Your task to perform on an android device: Open my contact list Image 0: 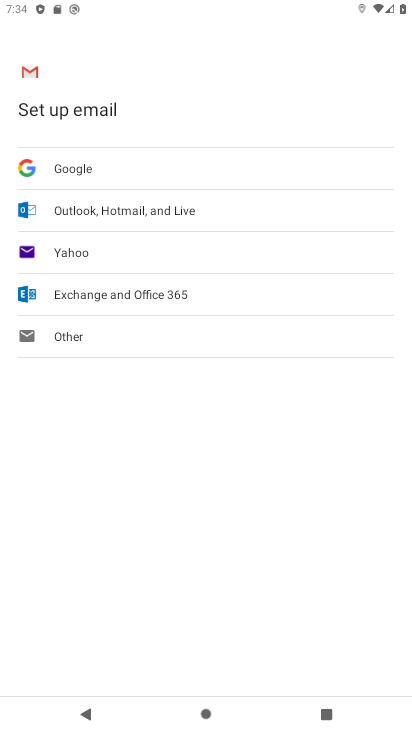
Step 0: press home button
Your task to perform on an android device: Open my contact list Image 1: 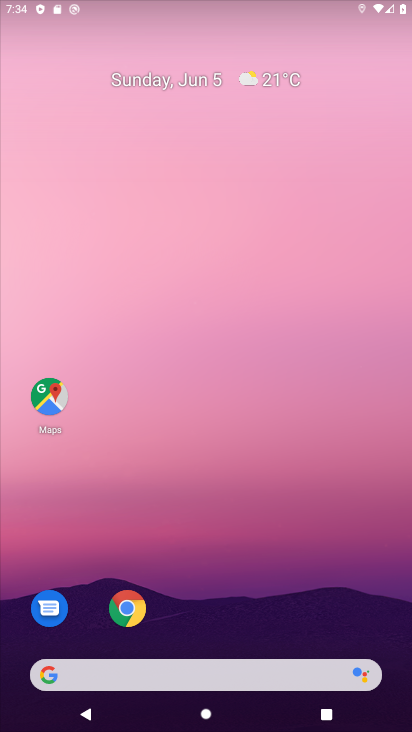
Step 1: drag from (247, 558) to (254, 265)
Your task to perform on an android device: Open my contact list Image 2: 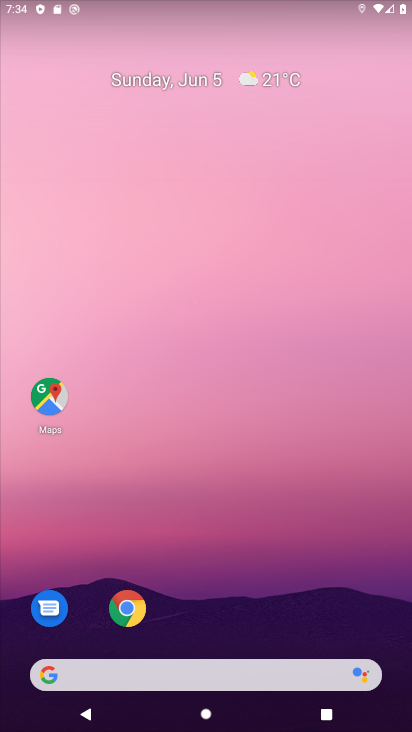
Step 2: drag from (257, 521) to (306, 212)
Your task to perform on an android device: Open my contact list Image 3: 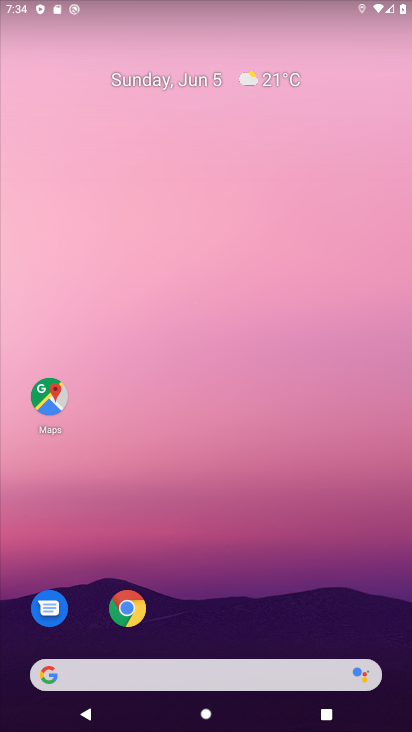
Step 3: drag from (294, 580) to (300, 203)
Your task to perform on an android device: Open my contact list Image 4: 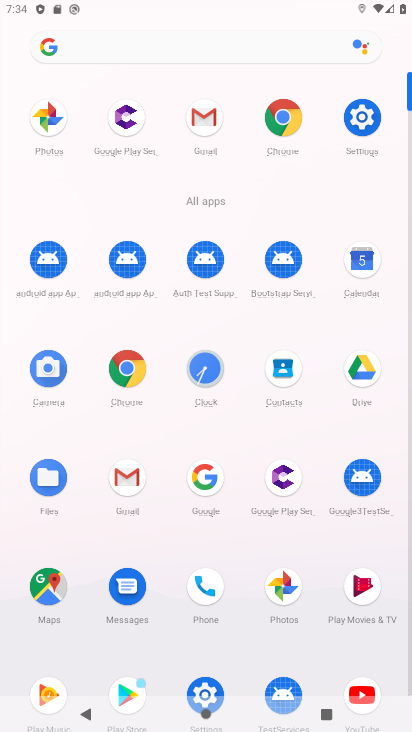
Step 4: click (291, 387)
Your task to perform on an android device: Open my contact list Image 5: 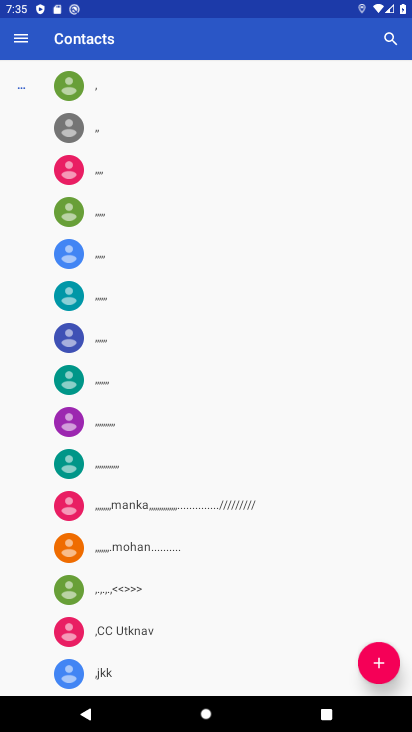
Step 5: task complete